Your task to perform on an android device: turn off sleep mode Image 0: 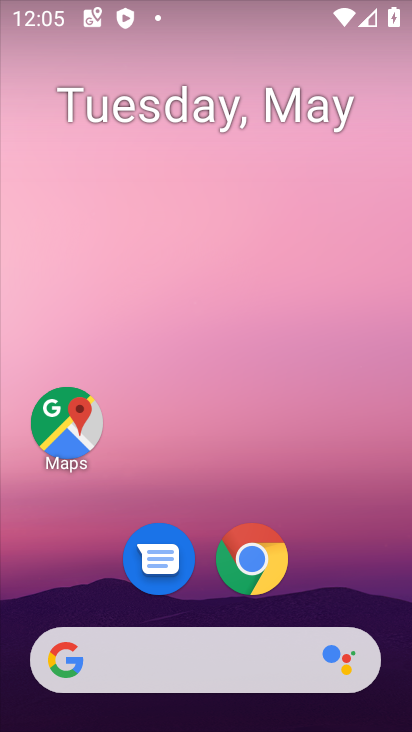
Step 0: drag from (378, 593) to (298, 76)
Your task to perform on an android device: turn off sleep mode Image 1: 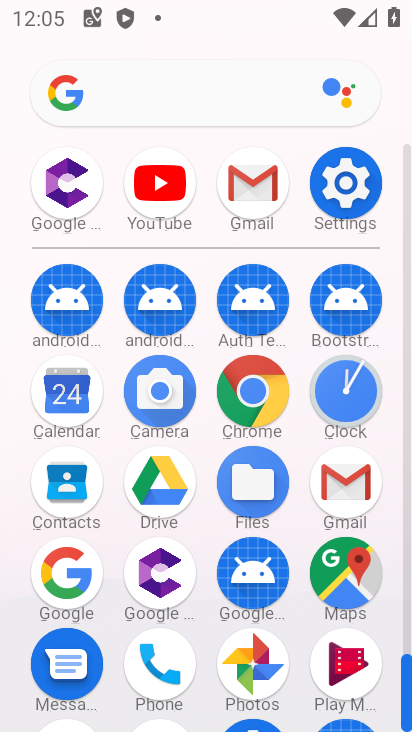
Step 1: click (350, 174)
Your task to perform on an android device: turn off sleep mode Image 2: 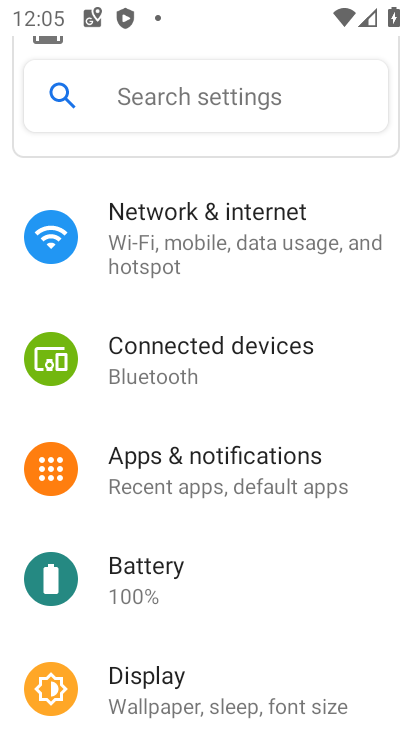
Step 2: drag from (265, 602) to (234, 220)
Your task to perform on an android device: turn off sleep mode Image 3: 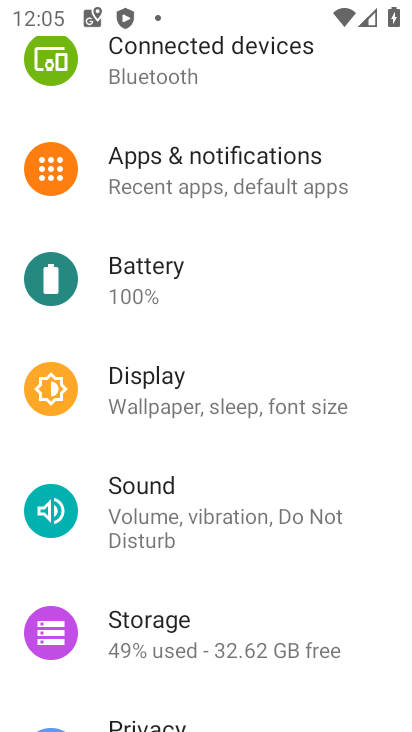
Step 3: click (236, 399)
Your task to perform on an android device: turn off sleep mode Image 4: 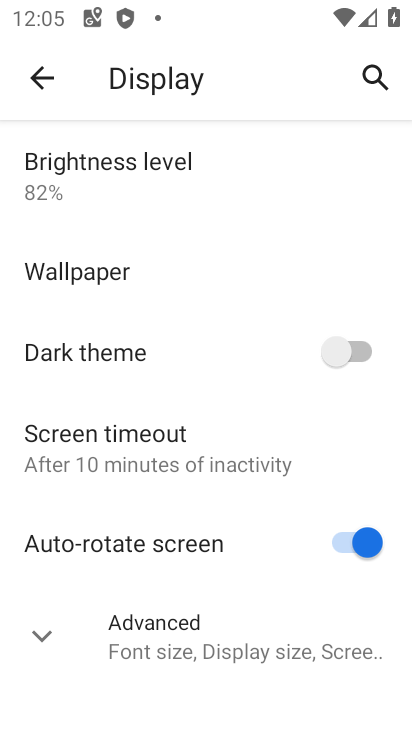
Step 4: click (146, 426)
Your task to perform on an android device: turn off sleep mode Image 5: 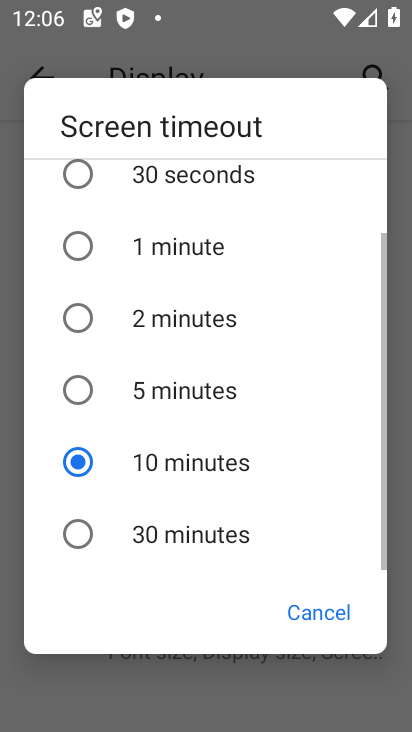
Step 5: click (159, 195)
Your task to perform on an android device: turn off sleep mode Image 6: 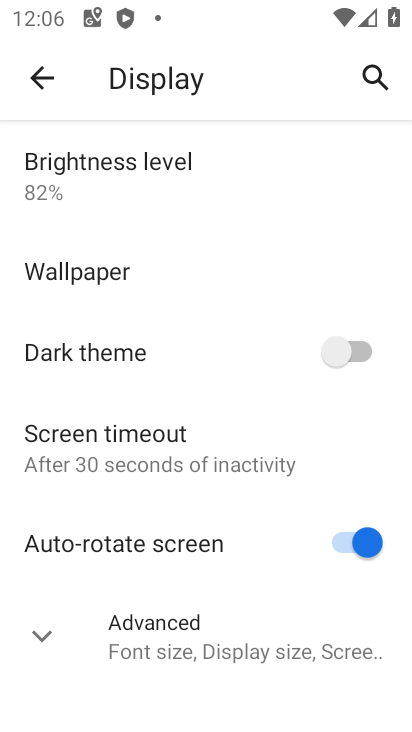
Step 6: task complete